Your task to perform on an android device: Open Google Image 0: 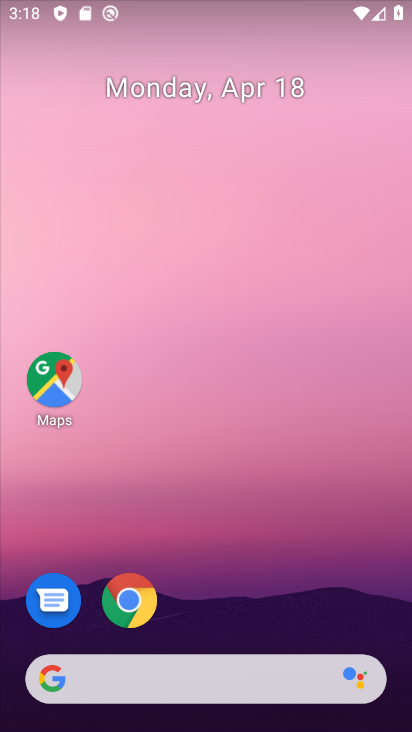
Step 0: drag from (6, 284) to (410, 585)
Your task to perform on an android device: Open Google Image 1: 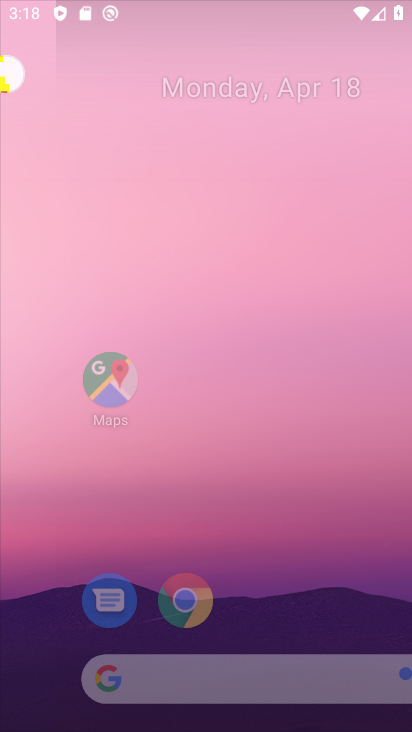
Step 1: click (347, 160)
Your task to perform on an android device: Open Google Image 2: 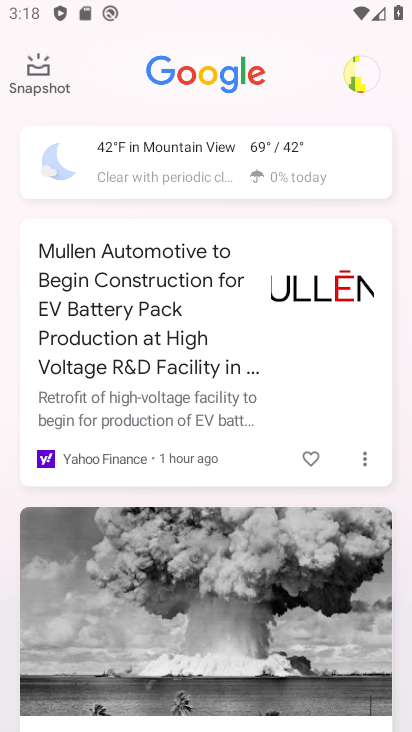
Step 2: press back button
Your task to perform on an android device: Open Google Image 3: 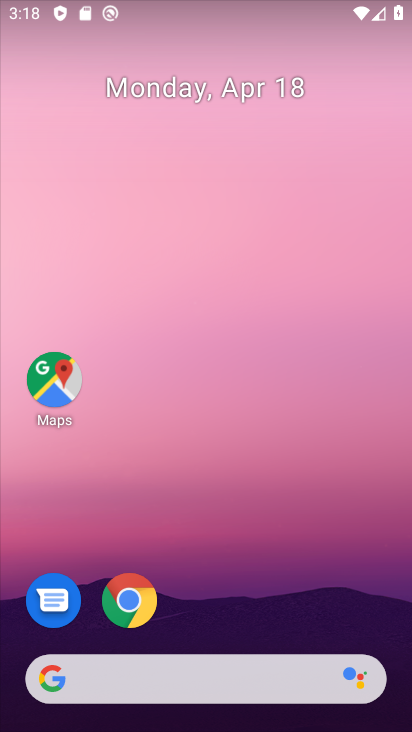
Step 3: drag from (350, 513) to (310, 97)
Your task to perform on an android device: Open Google Image 4: 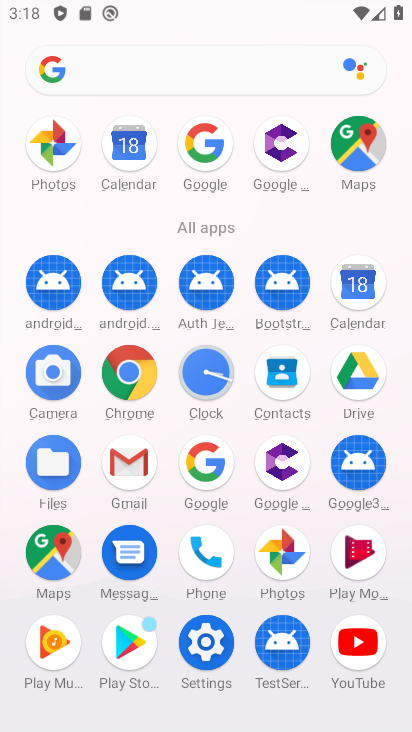
Step 4: click (212, 486)
Your task to perform on an android device: Open Google Image 5: 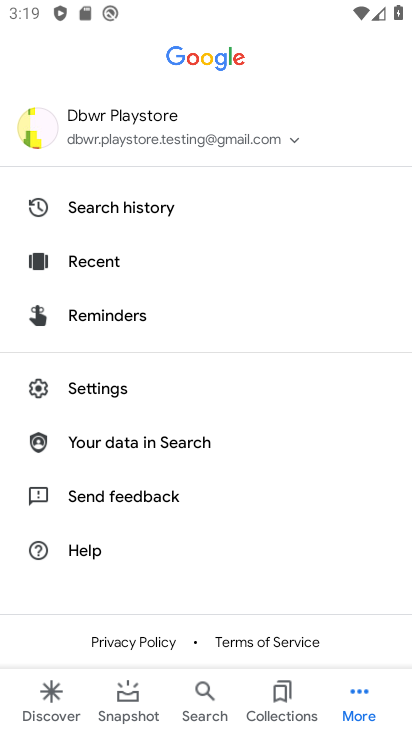
Step 5: task complete